Your task to perform on an android device: Play the last video I watched on Youtube Image 0: 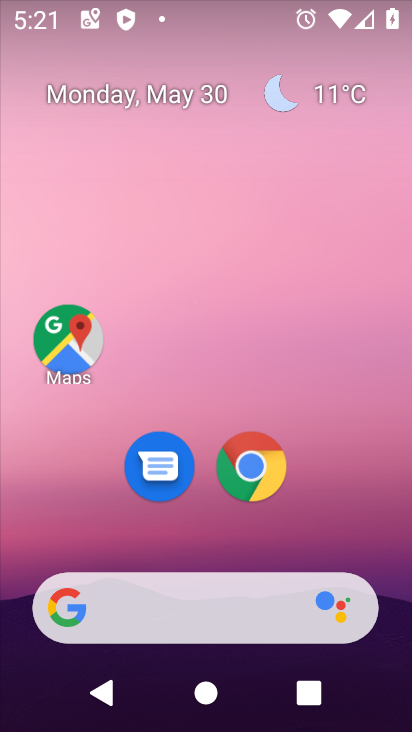
Step 0: drag from (337, 468) to (226, 78)
Your task to perform on an android device: Play the last video I watched on Youtube Image 1: 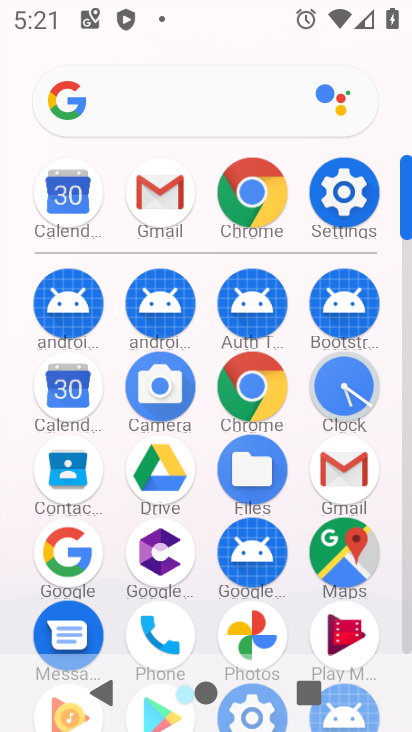
Step 1: drag from (290, 598) to (334, 126)
Your task to perform on an android device: Play the last video I watched on Youtube Image 2: 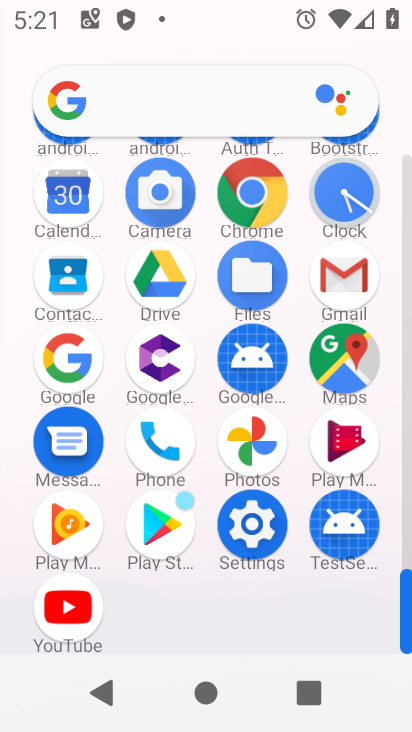
Step 2: click (78, 609)
Your task to perform on an android device: Play the last video I watched on Youtube Image 3: 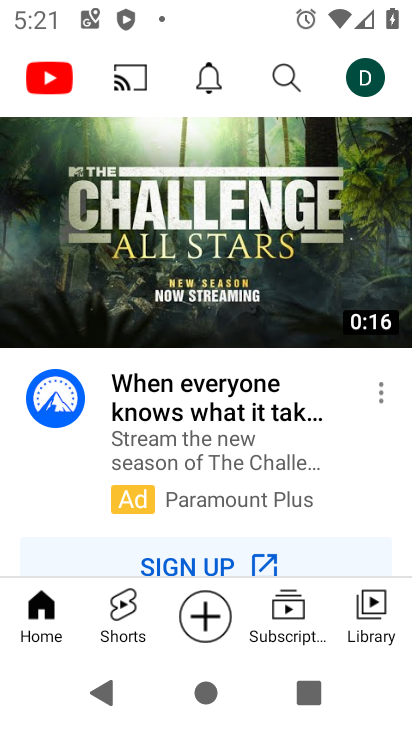
Step 3: click (362, 629)
Your task to perform on an android device: Play the last video I watched on Youtube Image 4: 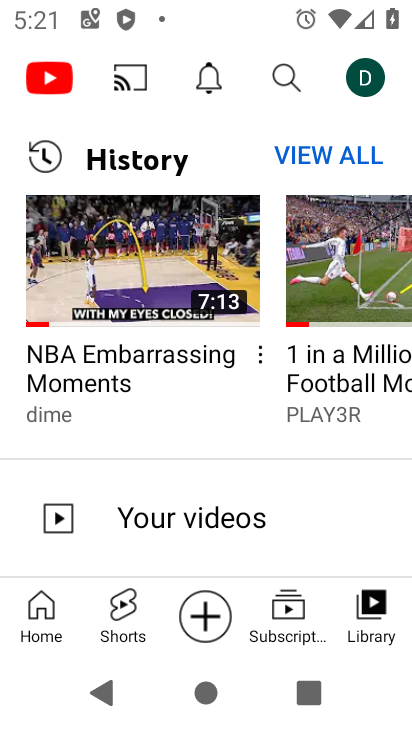
Step 4: click (210, 453)
Your task to perform on an android device: Play the last video I watched on Youtube Image 5: 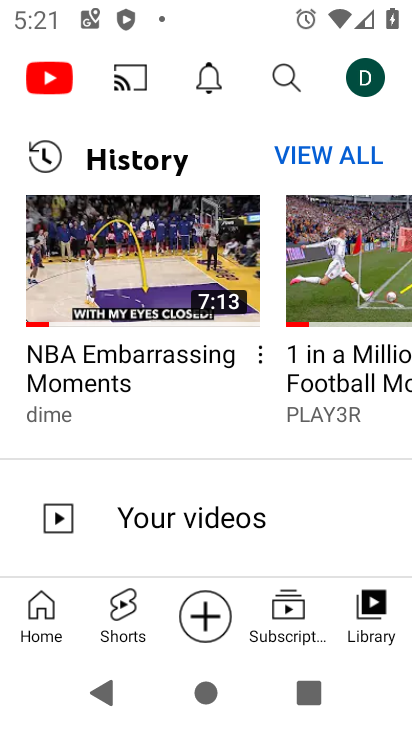
Step 5: click (153, 280)
Your task to perform on an android device: Play the last video I watched on Youtube Image 6: 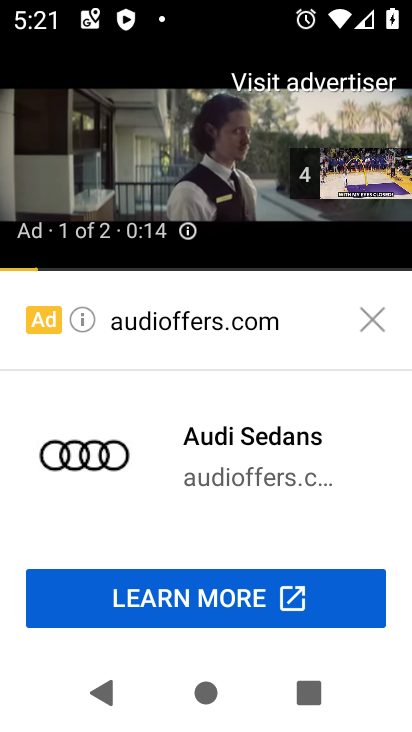
Step 6: task complete